Your task to perform on an android device: open app "Adobe Acrobat Reader" (install if not already installed) and enter user name: "nondescriptly@inbox.com" and password: "negating" Image 0: 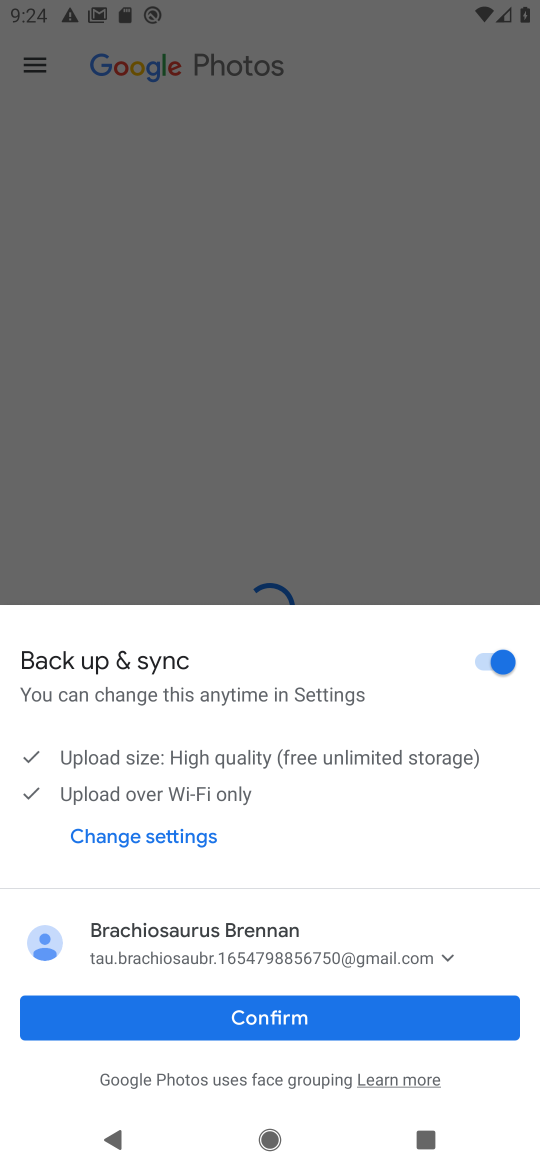
Step 0: press home button
Your task to perform on an android device: open app "Adobe Acrobat Reader" (install if not already installed) and enter user name: "nondescriptly@inbox.com" and password: "negating" Image 1: 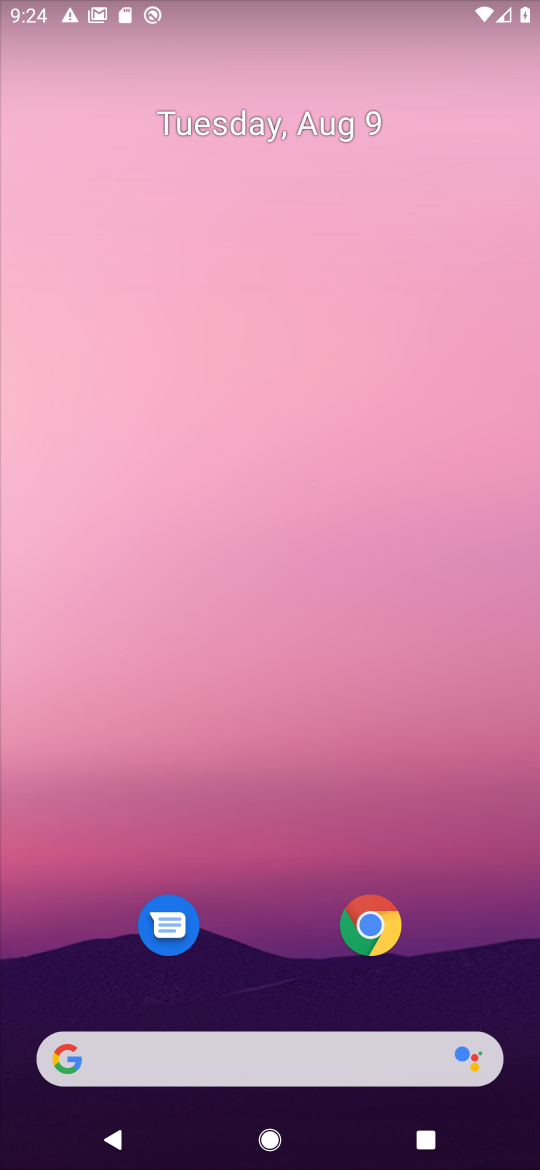
Step 1: drag from (260, 765) to (250, 213)
Your task to perform on an android device: open app "Adobe Acrobat Reader" (install if not already installed) and enter user name: "nondescriptly@inbox.com" and password: "negating" Image 2: 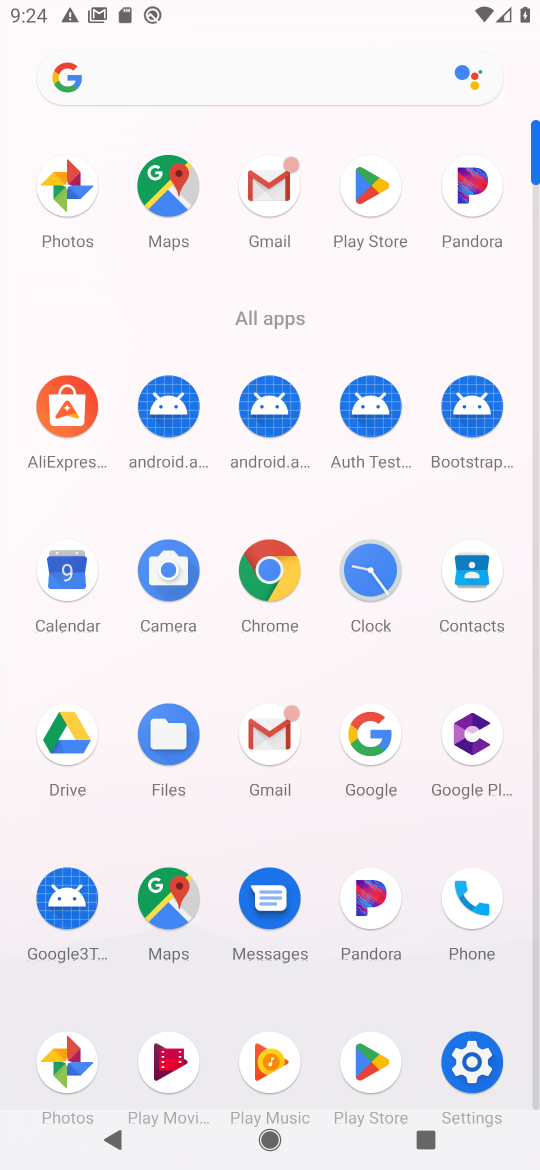
Step 2: click (366, 209)
Your task to perform on an android device: open app "Adobe Acrobat Reader" (install if not already installed) and enter user name: "nondescriptly@inbox.com" and password: "negating" Image 3: 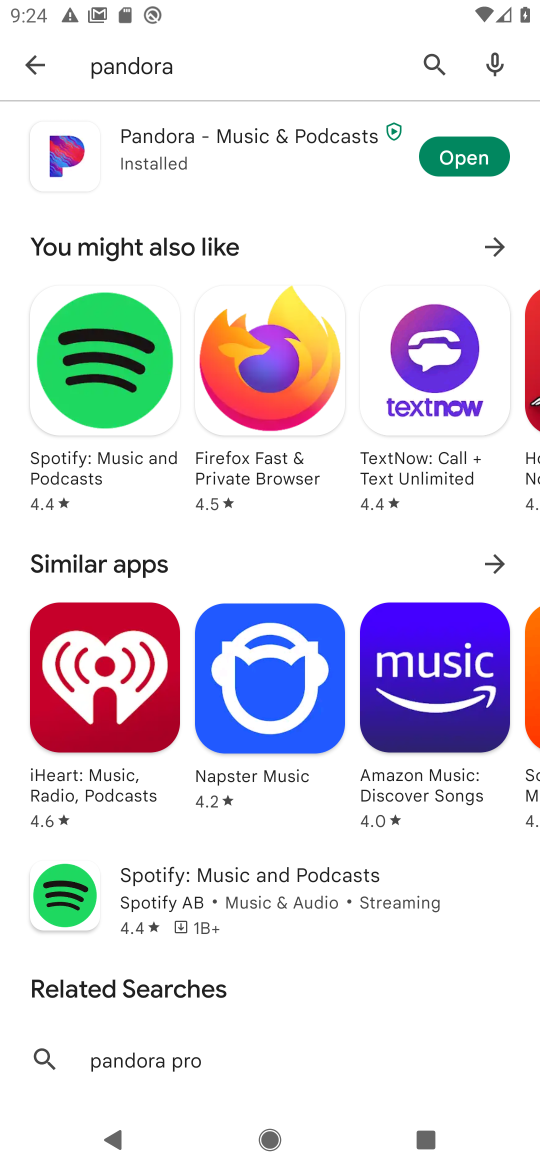
Step 3: click (35, 73)
Your task to perform on an android device: open app "Adobe Acrobat Reader" (install if not already installed) and enter user name: "nondescriptly@inbox.com" and password: "negating" Image 4: 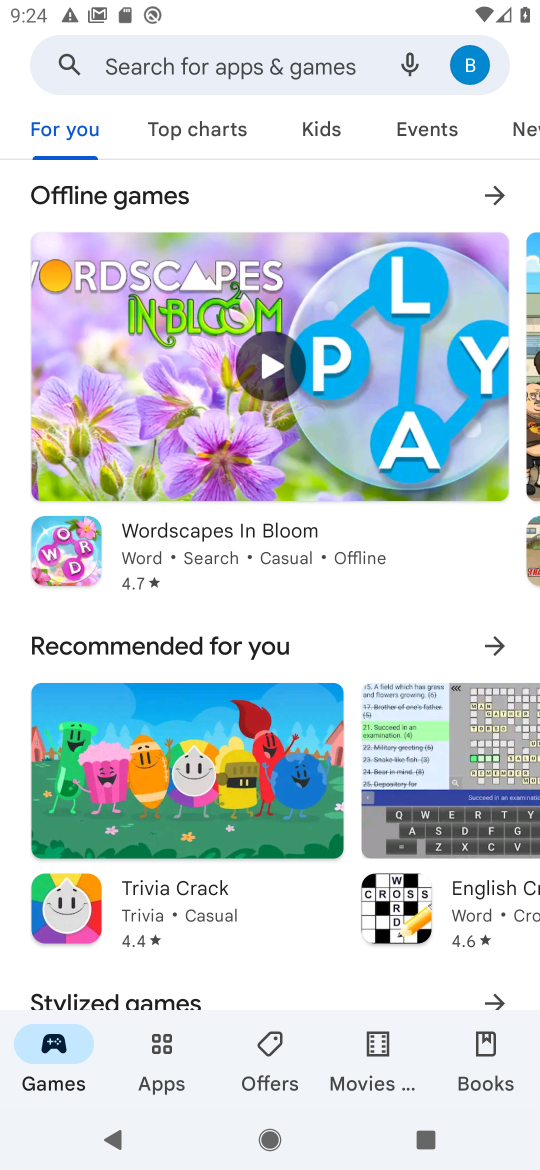
Step 4: click (272, 53)
Your task to perform on an android device: open app "Adobe Acrobat Reader" (install if not already installed) and enter user name: "nondescriptly@inbox.com" and password: "negating" Image 5: 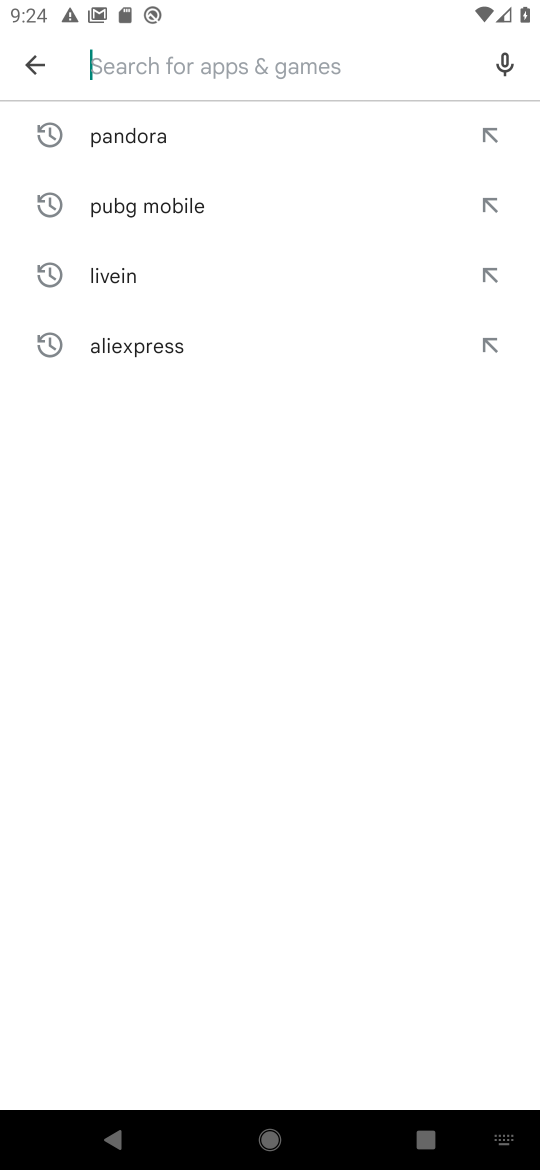
Step 5: type "Adobe Acrobat Reader"
Your task to perform on an android device: open app "Adobe Acrobat Reader" (install if not already installed) and enter user name: "nondescriptly@inbox.com" and password: "negating" Image 6: 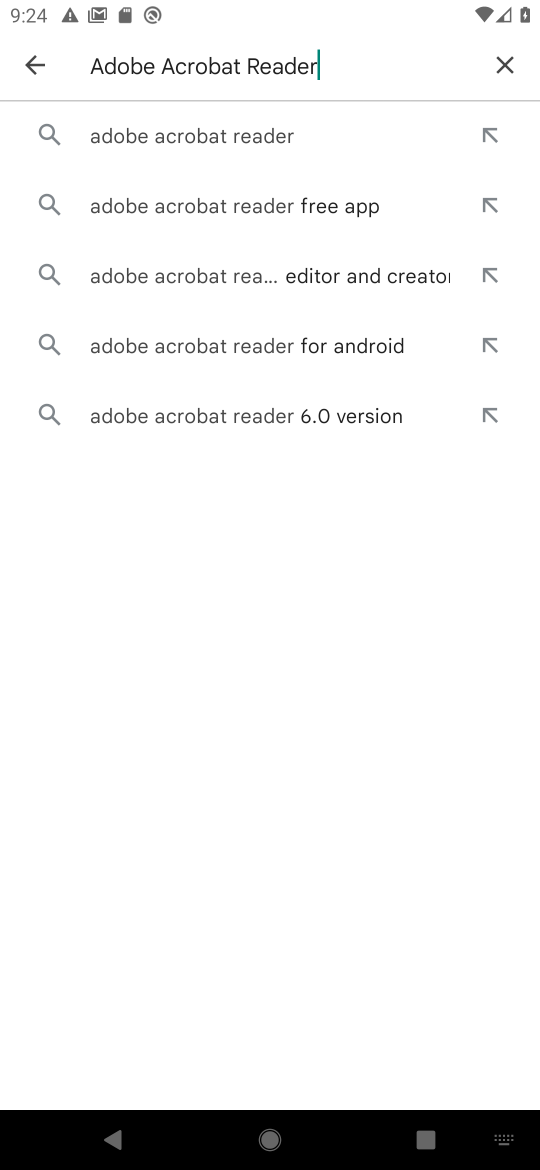
Step 6: click (162, 140)
Your task to perform on an android device: open app "Adobe Acrobat Reader" (install if not already installed) and enter user name: "nondescriptly@inbox.com" and password: "negating" Image 7: 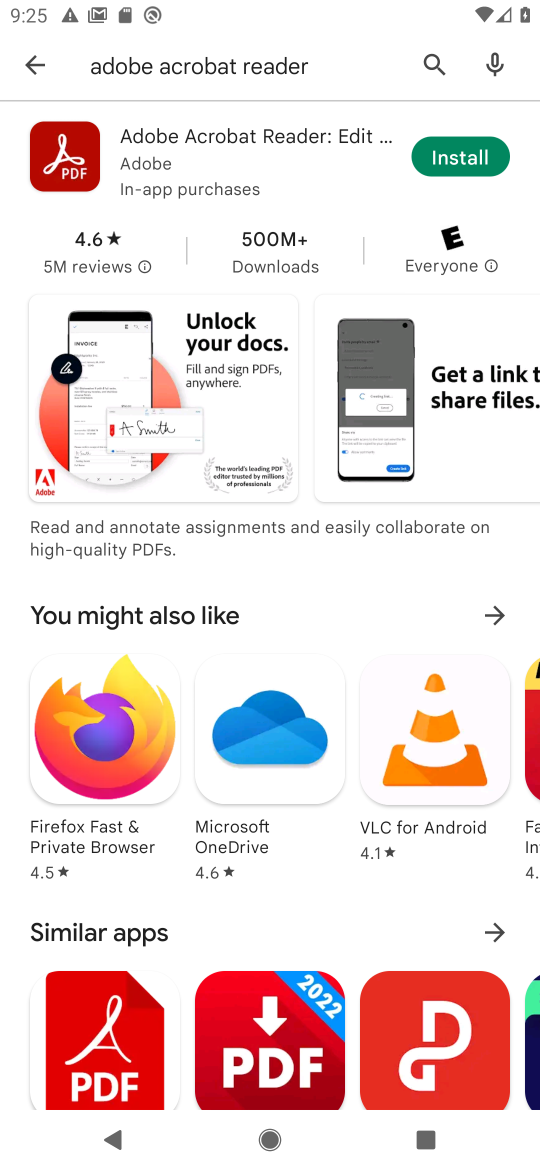
Step 7: click (454, 152)
Your task to perform on an android device: open app "Adobe Acrobat Reader" (install if not already installed) and enter user name: "nondescriptly@inbox.com" and password: "negating" Image 8: 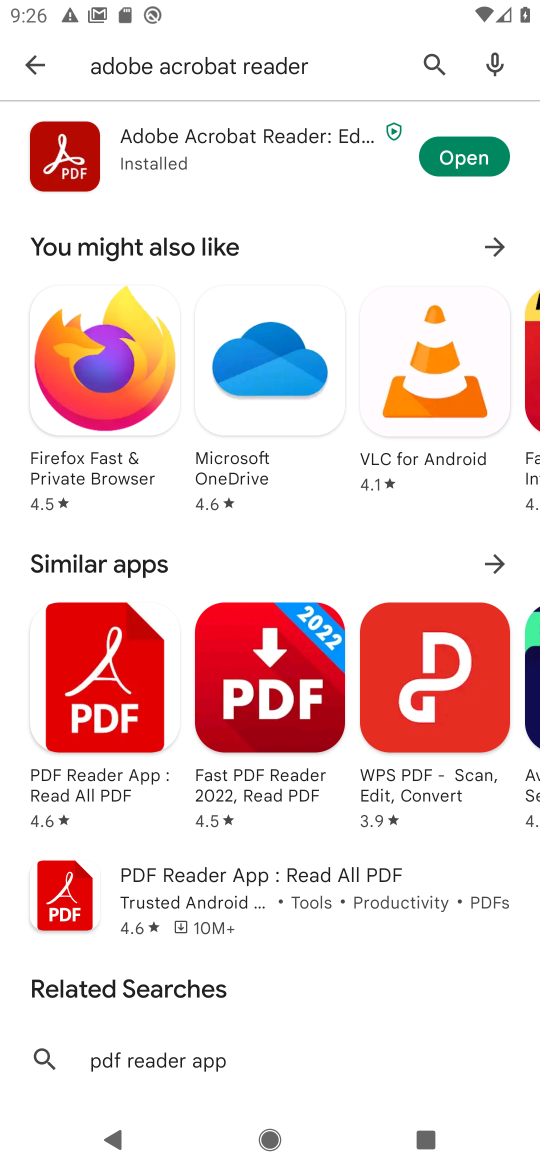
Step 8: click (449, 158)
Your task to perform on an android device: open app "Adobe Acrobat Reader" (install if not already installed) and enter user name: "nondescriptly@inbox.com" and password: "negating" Image 9: 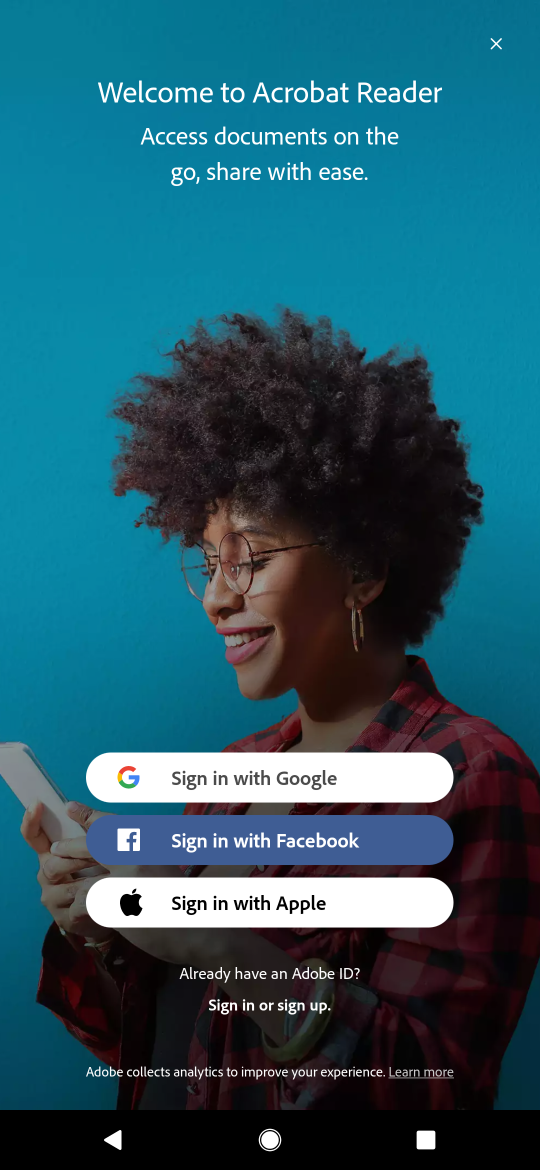
Step 9: click (247, 973)
Your task to perform on an android device: open app "Adobe Acrobat Reader" (install if not already installed) and enter user name: "nondescriptly@inbox.com" and password: "negating" Image 10: 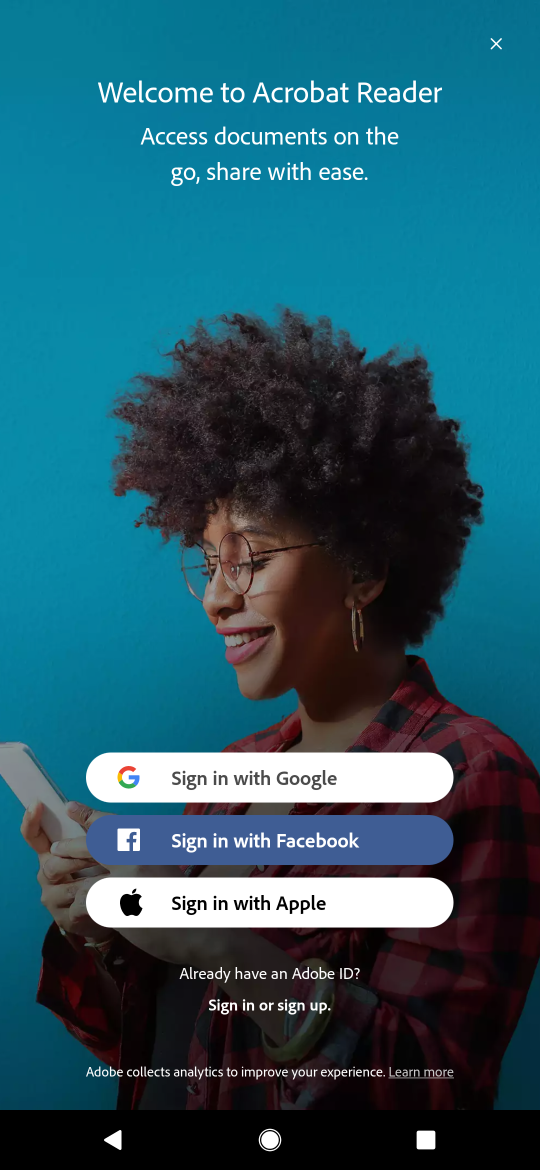
Step 10: click (282, 973)
Your task to perform on an android device: open app "Adobe Acrobat Reader" (install if not already installed) and enter user name: "nondescriptly@inbox.com" and password: "negating" Image 11: 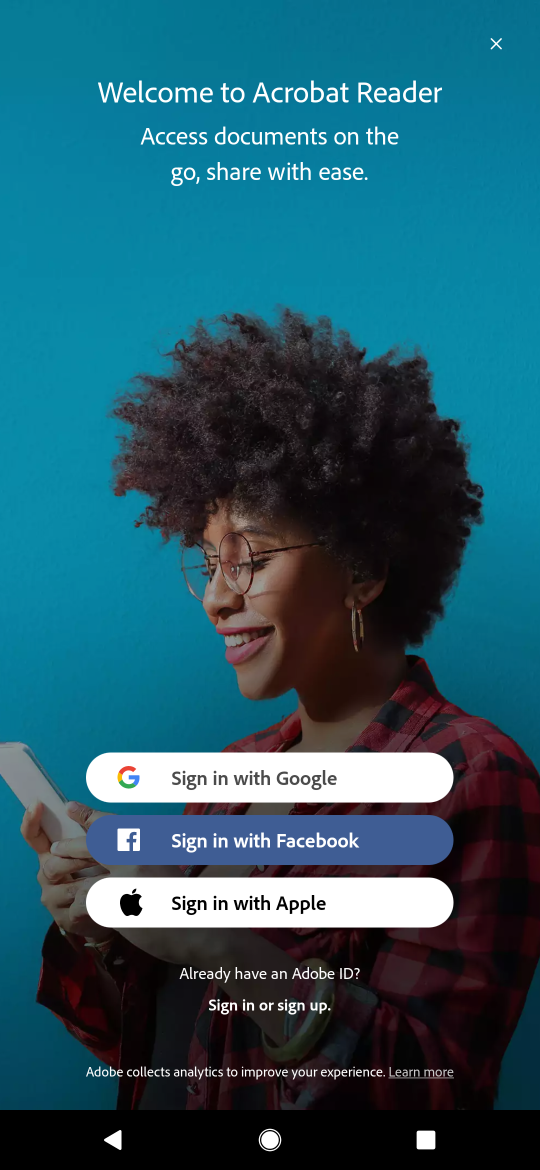
Step 11: click (317, 973)
Your task to perform on an android device: open app "Adobe Acrobat Reader" (install if not already installed) and enter user name: "nondescriptly@inbox.com" and password: "negating" Image 12: 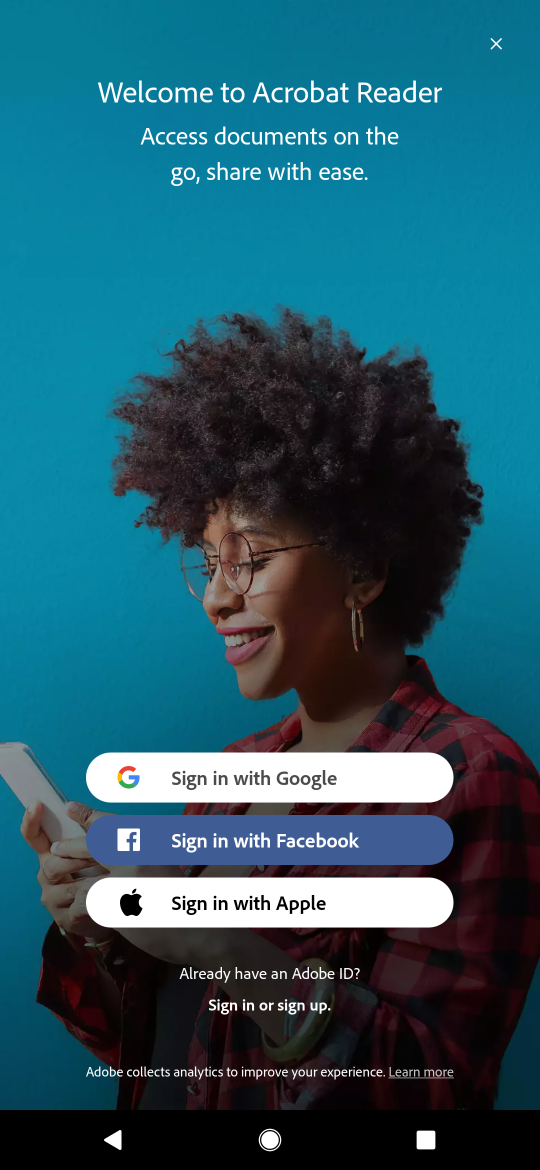
Step 12: click (228, 1006)
Your task to perform on an android device: open app "Adobe Acrobat Reader" (install if not already installed) and enter user name: "nondescriptly@inbox.com" and password: "negating" Image 13: 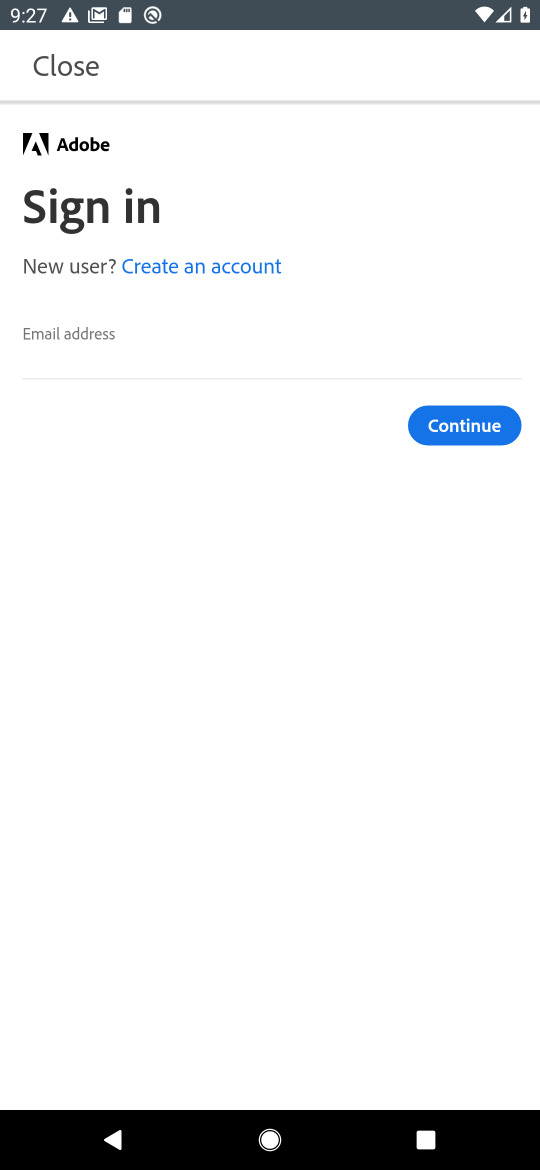
Step 13: click (127, 357)
Your task to perform on an android device: open app "Adobe Acrobat Reader" (install if not already installed) and enter user name: "nondescriptly@inbox.com" and password: "negating" Image 14: 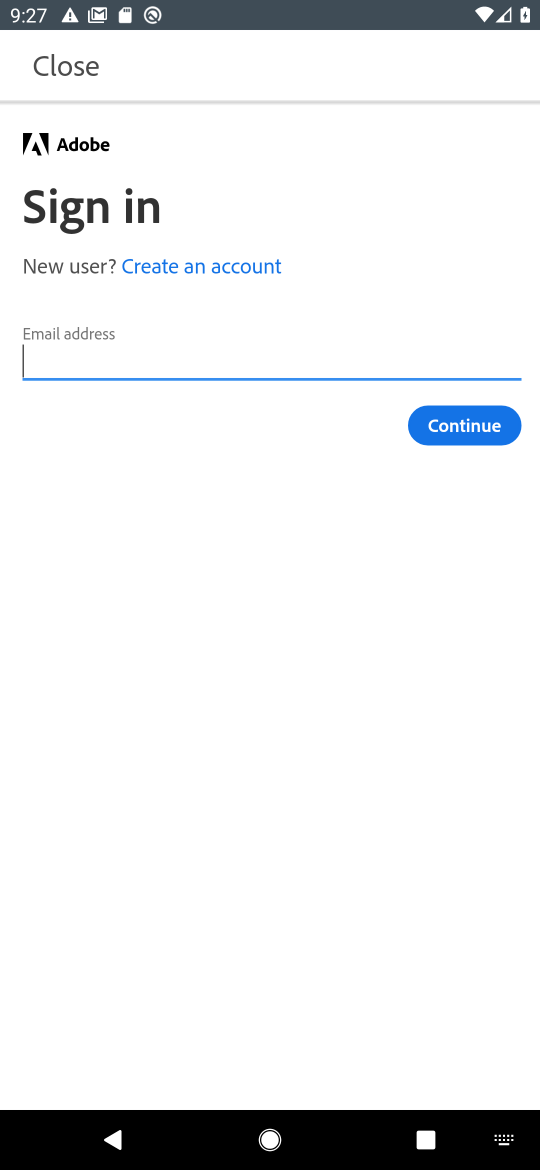
Step 14: type "nondescriptly@inbox.com"
Your task to perform on an android device: open app "Adobe Acrobat Reader" (install if not already installed) and enter user name: "nondescriptly@inbox.com" and password: "negating" Image 15: 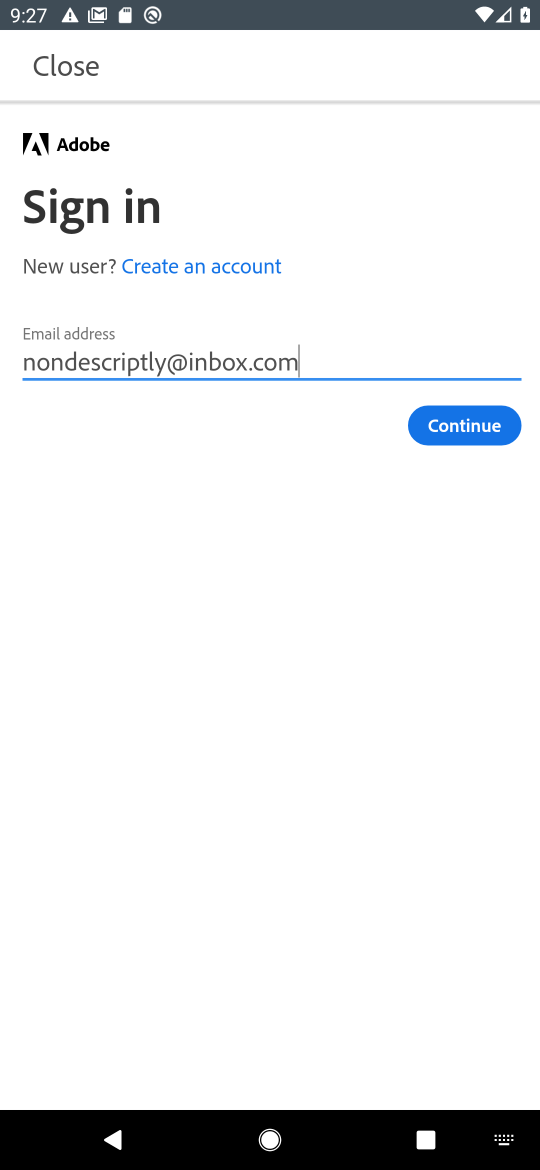
Step 15: click (444, 433)
Your task to perform on an android device: open app "Adobe Acrobat Reader" (install if not already installed) and enter user name: "nondescriptly@inbox.com" and password: "negating" Image 16: 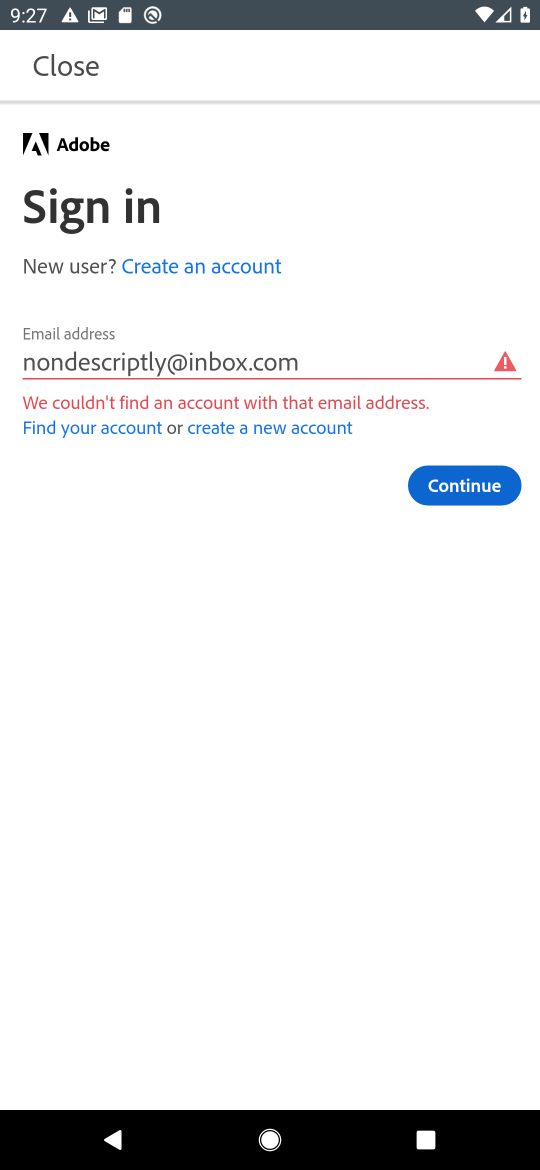
Step 16: task complete